Your task to perform on an android device: make emails show in primary in the gmail app Image 0: 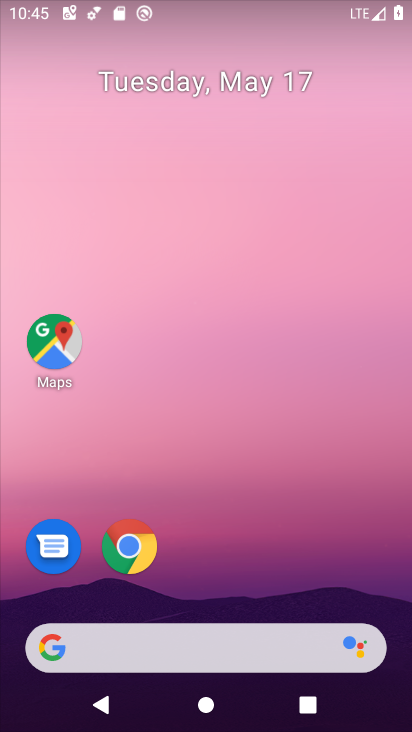
Step 0: drag from (228, 590) to (289, 23)
Your task to perform on an android device: make emails show in primary in the gmail app Image 1: 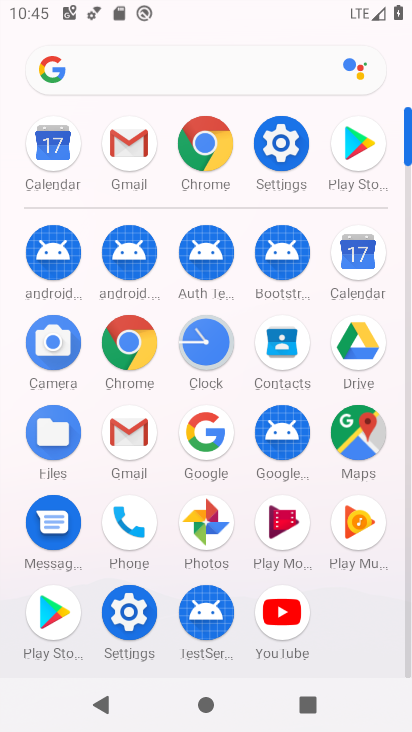
Step 1: click (125, 439)
Your task to perform on an android device: make emails show in primary in the gmail app Image 2: 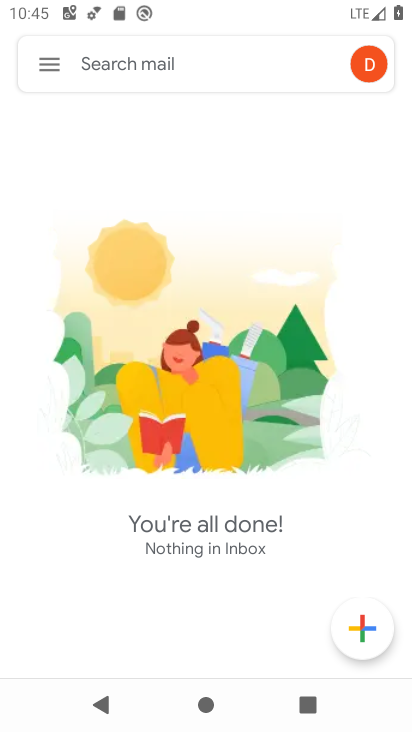
Step 2: click (55, 54)
Your task to perform on an android device: make emails show in primary in the gmail app Image 3: 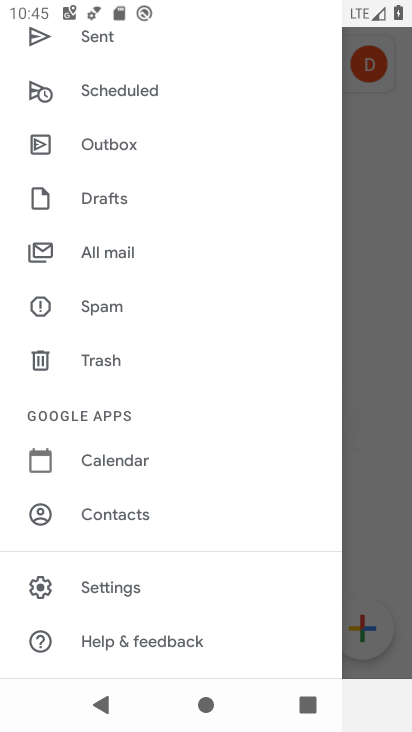
Step 3: click (116, 584)
Your task to perform on an android device: make emails show in primary in the gmail app Image 4: 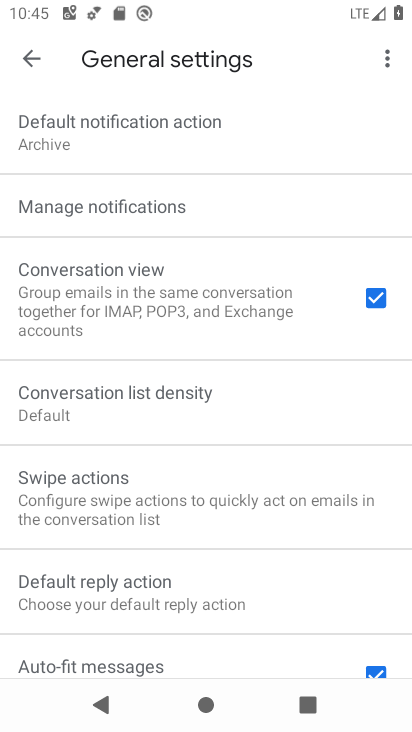
Step 4: click (31, 52)
Your task to perform on an android device: make emails show in primary in the gmail app Image 5: 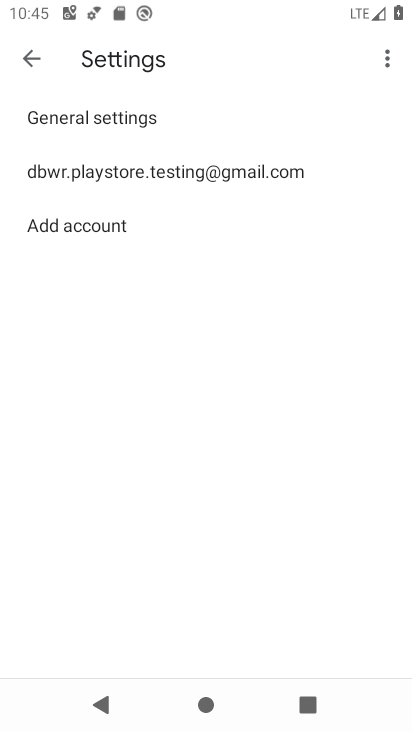
Step 5: click (151, 183)
Your task to perform on an android device: make emails show in primary in the gmail app Image 6: 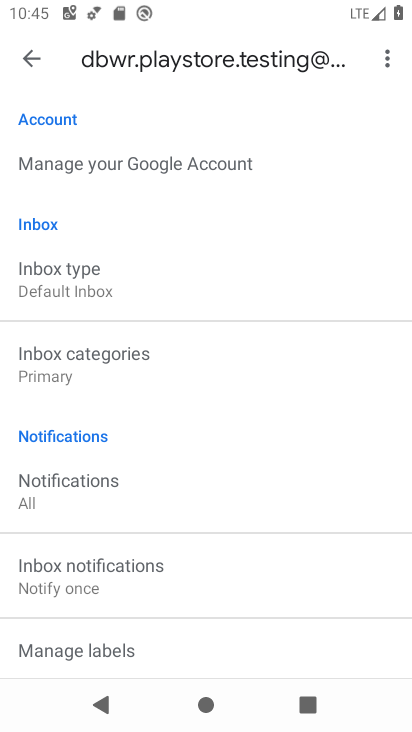
Step 6: task complete